Your task to perform on an android device: Open Youtube and go to "Your channel" Image 0: 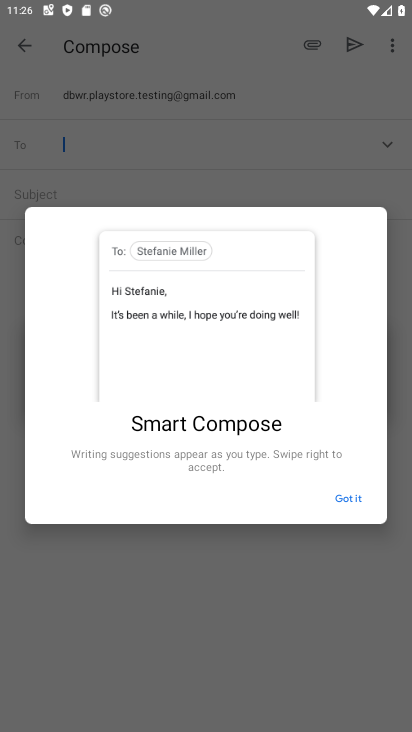
Step 0: press home button
Your task to perform on an android device: Open Youtube and go to "Your channel" Image 1: 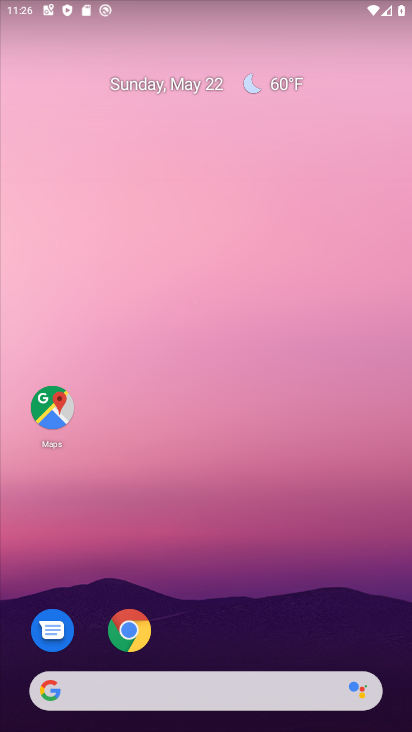
Step 1: drag from (269, 612) to (169, 104)
Your task to perform on an android device: Open Youtube and go to "Your channel" Image 2: 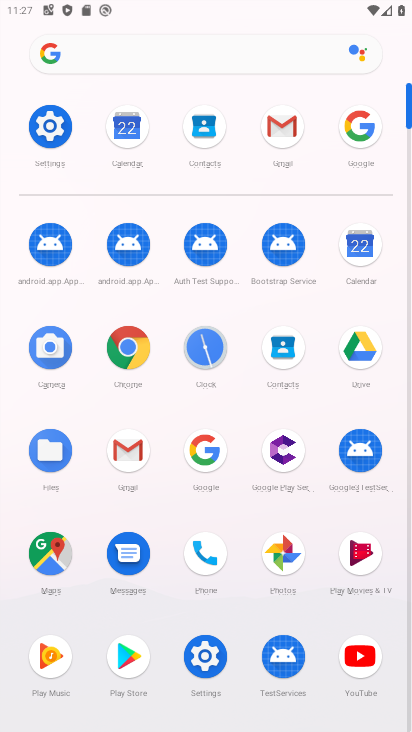
Step 2: click (359, 656)
Your task to perform on an android device: Open Youtube and go to "Your channel" Image 3: 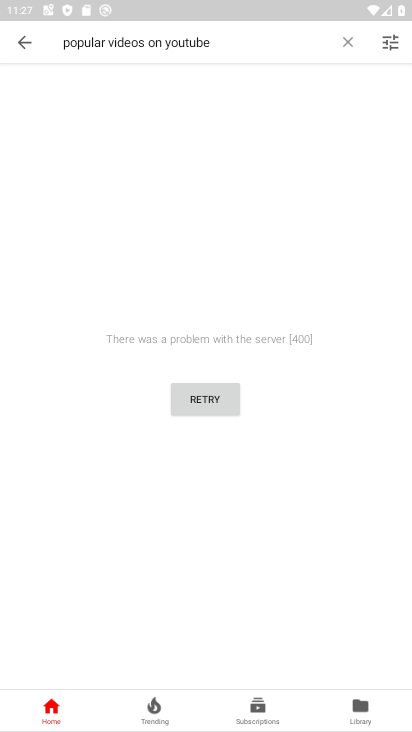
Step 3: click (343, 33)
Your task to perform on an android device: Open Youtube and go to "Your channel" Image 4: 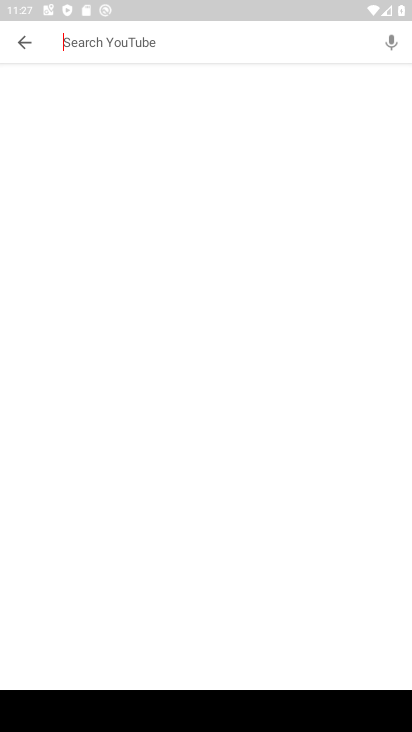
Step 4: click (18, 44)
Your task to perform on an android device: Open Youtube and go to "Your channel" Image 5: 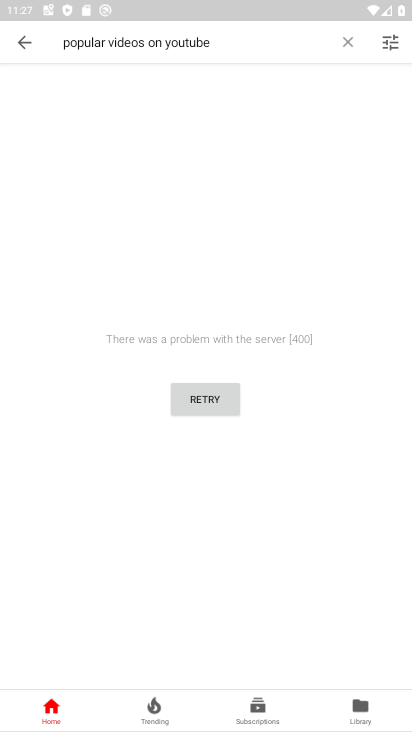
Step 5: click (204, 396)
Your task to perform on an android device: Open Youtube and go to "Your channel" Image 6: 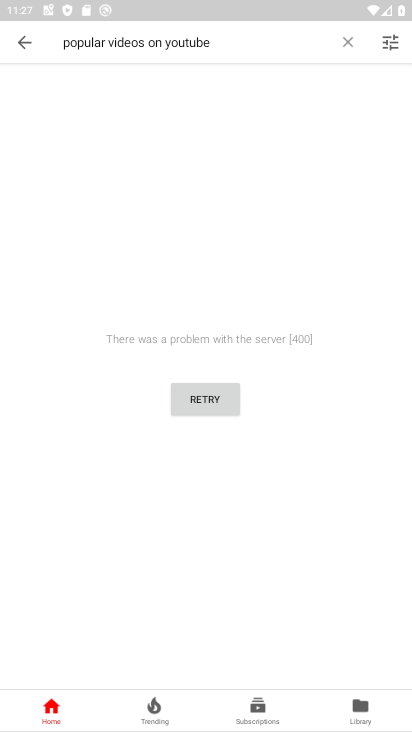
Step 6: click (204, 396)
Your task to perform on an android device: Open Youtube and go to "Your channel" Image 7: 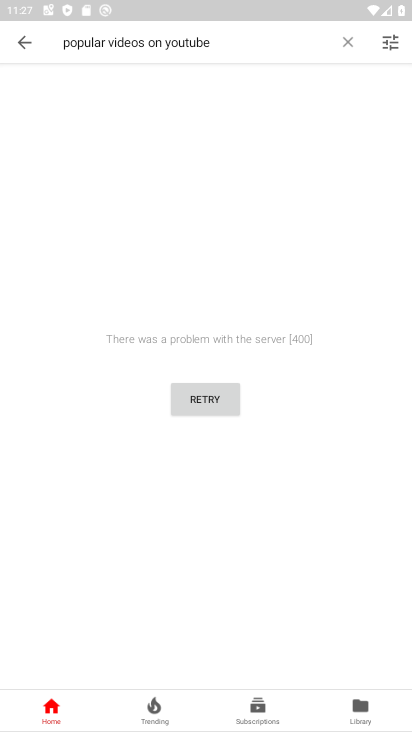
Step 7: task complete